Your task to perform on an android device: Search for flights from Buenos aires to Helsinki Image 0: 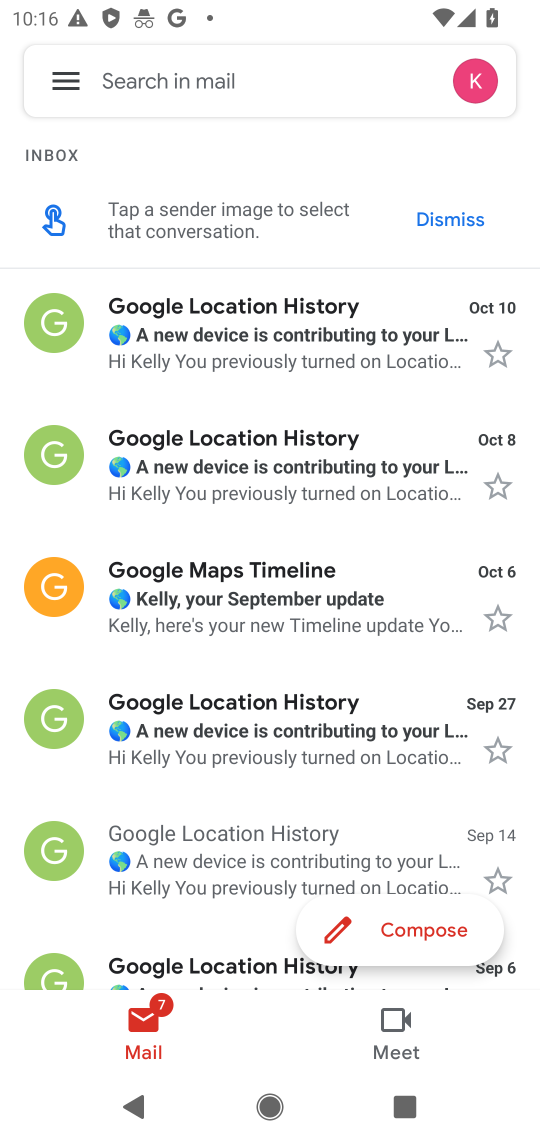
Step 0: press home button
Your task to perform on an android device: Search for flights from Buenos aires to Helsinki Image 1: 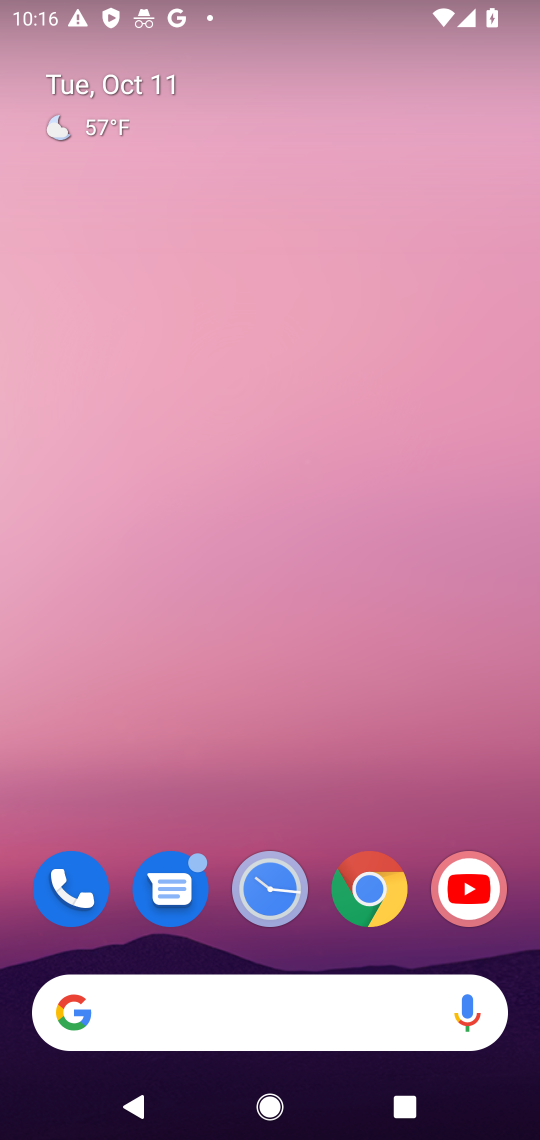
Step 1: click (322, 992)
Your task to perform on an android device: Search for flights from Buenos aires to Helsinki Image 2: 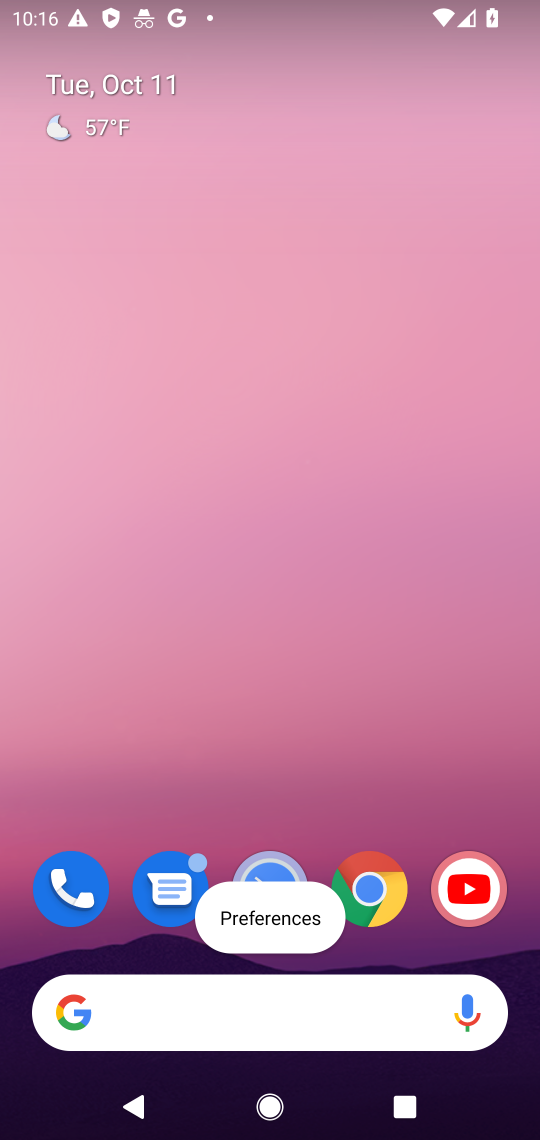
Step 2: click (226, 1018)
Your task to perform on an android device: Search for flights from Buenos aires to Helsinki Image 3: 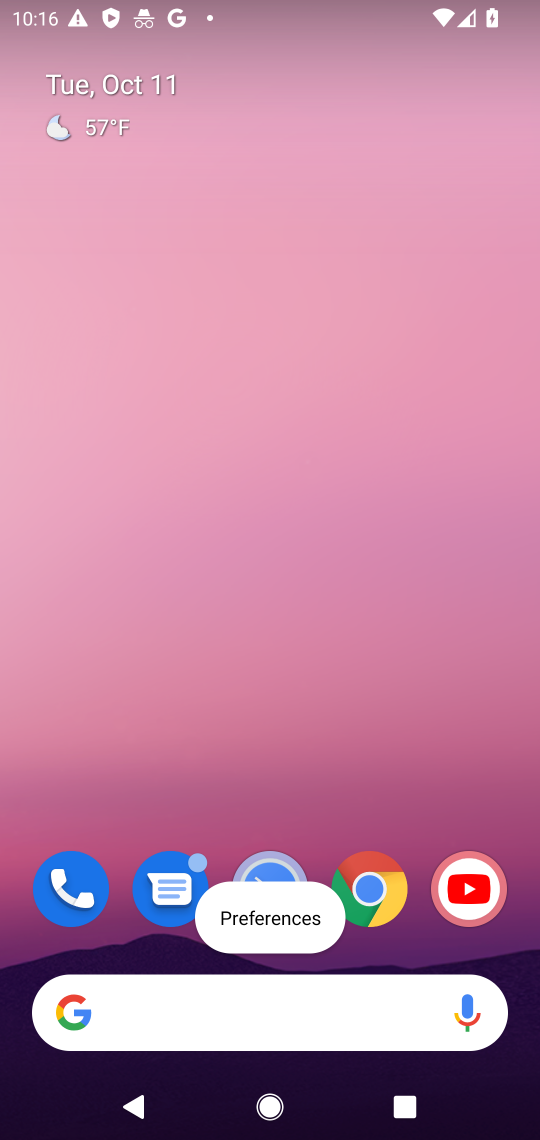
Step 3: click (226, 1018)
Your task to perform on an android device: Search for flights from Buenos aires to Helsinki Image 4: 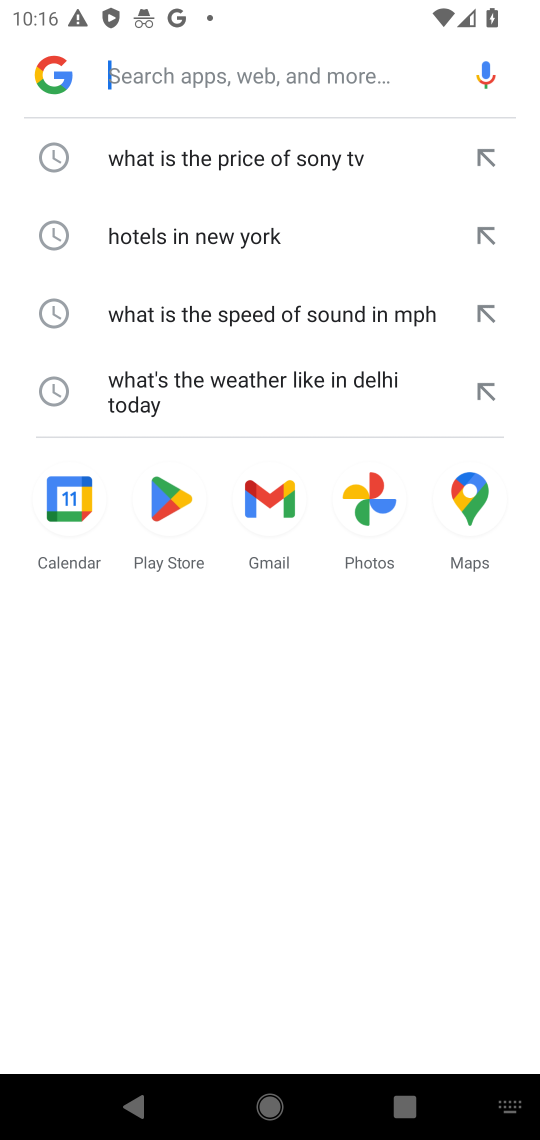
Step 4: click (211, 68)
Your task to perform on an android device: Search for flights from Buenos aires to Helsinki Image 5: 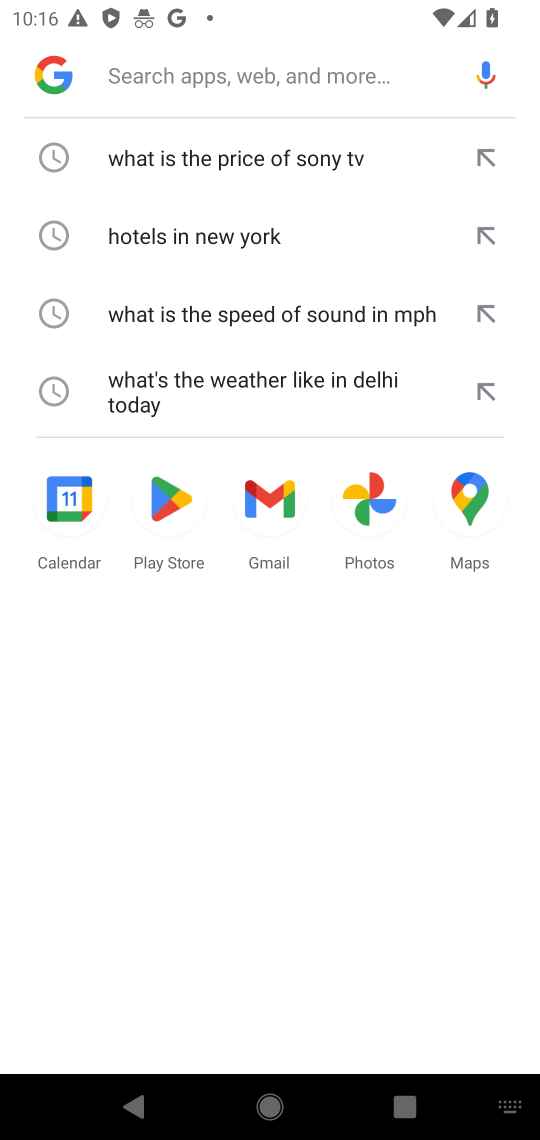
Step 5: type "flights from Buenos aires to Helsinki"
Your task to perform on an android device: Search for flights from Buenos aires to Helsinki Image 6: 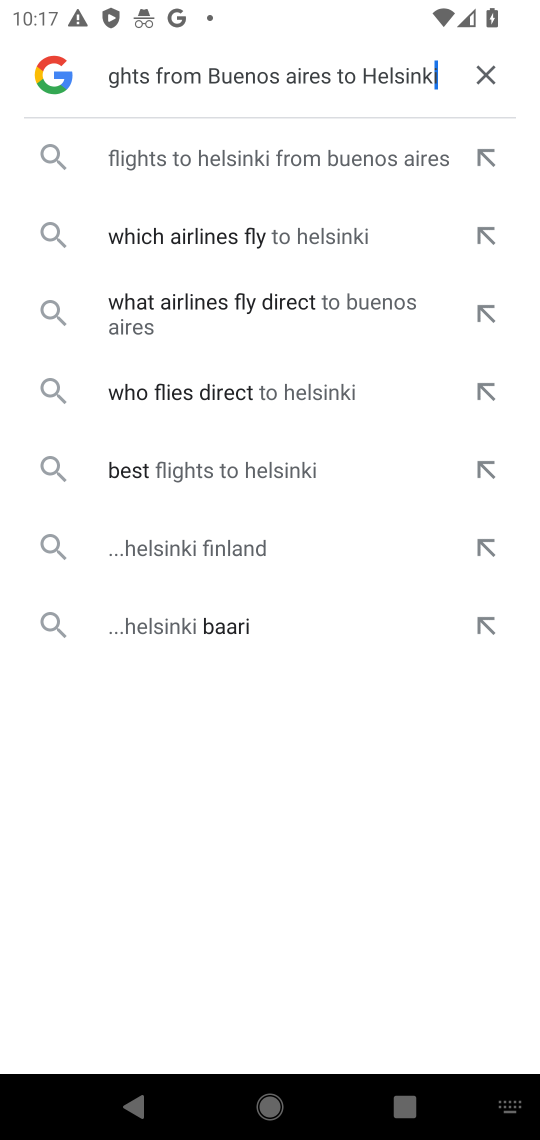
Step 6: click (254, 154)
Your task to perform on an android device: Search for flights from Buenos aires to Helsinki Image 7: 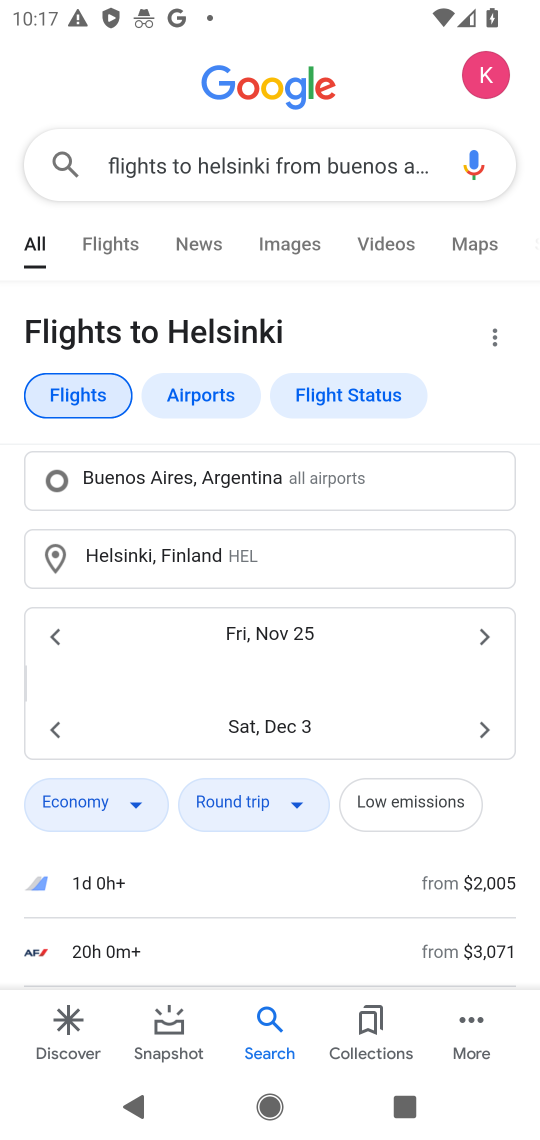
Step 7: task complete